Your task to perform on an android device: Go to settings Image 0: 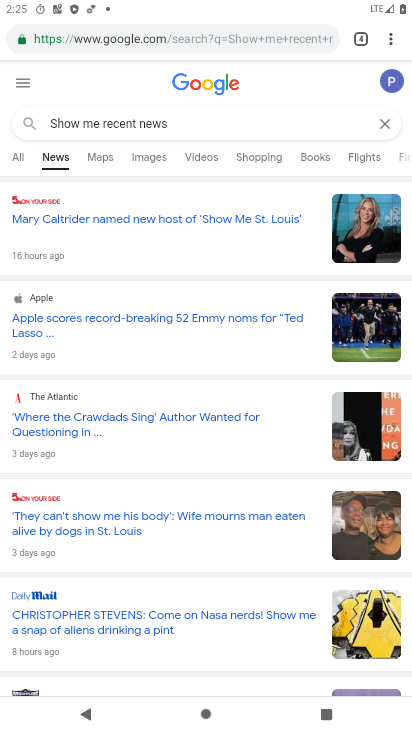
Step 0: press home button
Your task to perform on an android device: Go to settings Image 1: 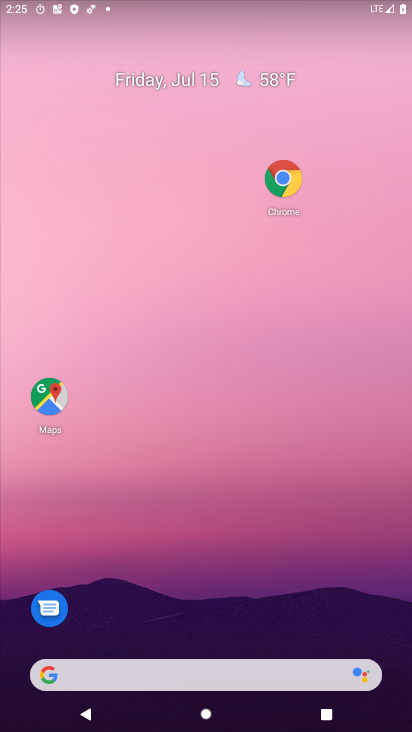
Step 1: drag from (195, 610) to (202, 105)
Your task to perform on an android device: Go to settings Image 2: 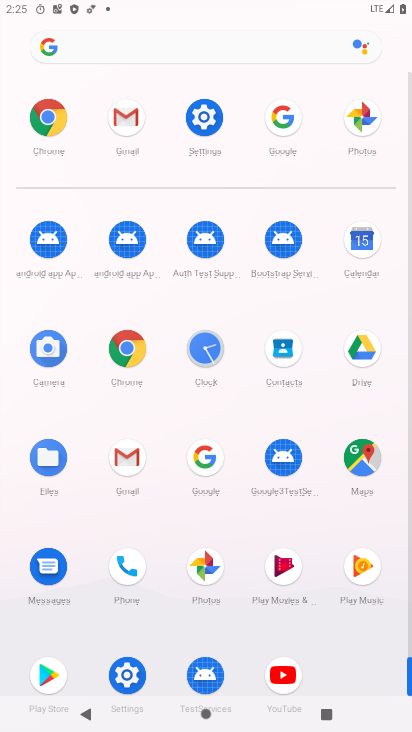
Step 2: click (115, 671)
Your task to perform on an android device: Go to settings Image 3: 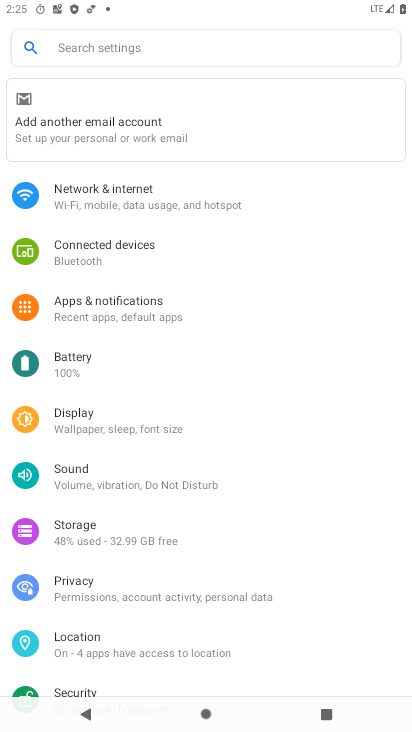
Step 3: task complete